Your task to perform on an android device: see tabs open on other devices in the chrome app Image 0: 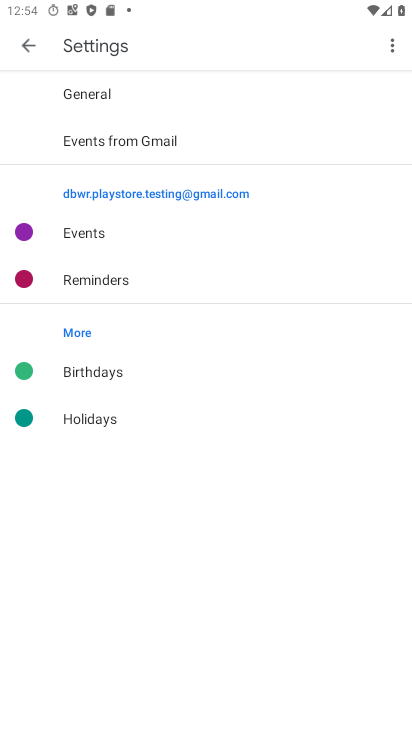
Step 0: press home button
Your task to perform on an android device: see tabs open on other devices in the chrome app Image 1: 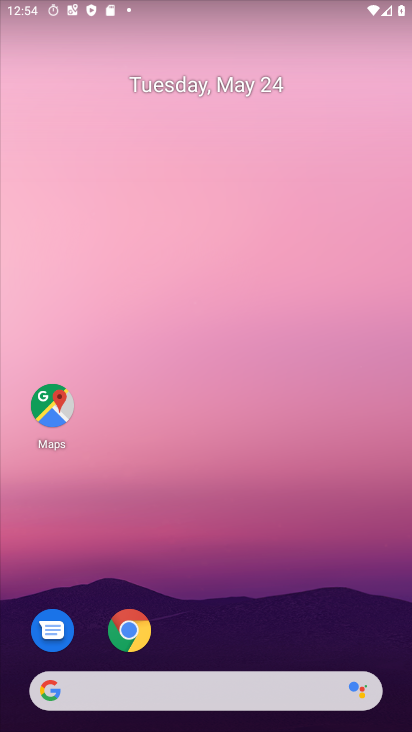
Step 1: click (139, 629)
Your task to perform on an android device: see tabs open on other devices in the chrome app Image 2: 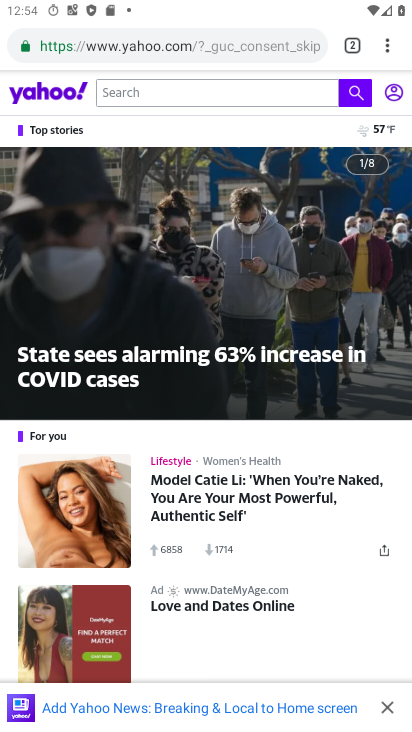
Step 2: click (390, 52)
Your task to perform on an android device: see tabs open on other devices in the chrome app Image 3: 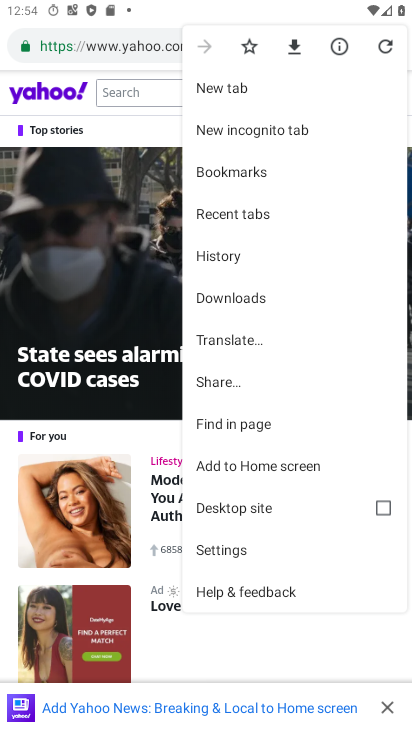
Step 3: click (220, 219)
Your task to perform on an android device: see tabs open on other devices in the chrome app Image 4: 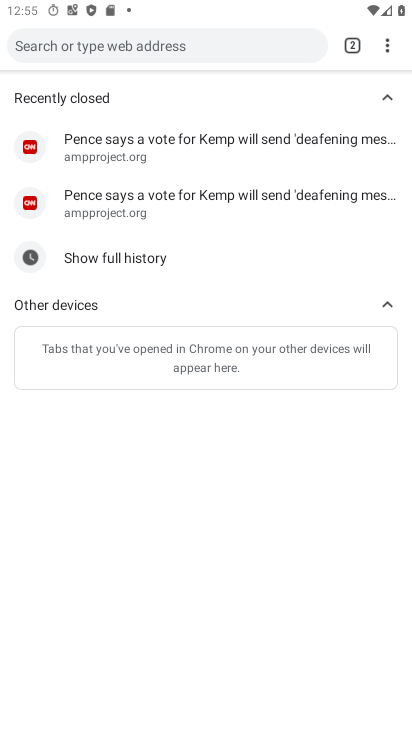
Step 4: task complete